Your task to perform on an android device: Open Google Maps and go to "Timeline" Image 0: 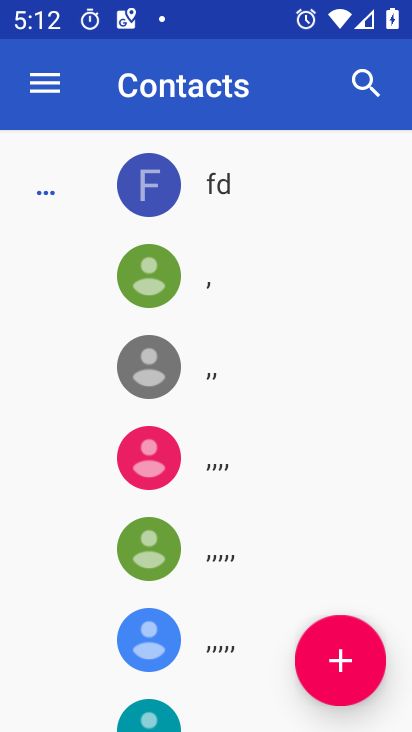
Step 0: press home button
Your task to perform on an android device: Open Google Maps and go to "Timeline" Image 1: 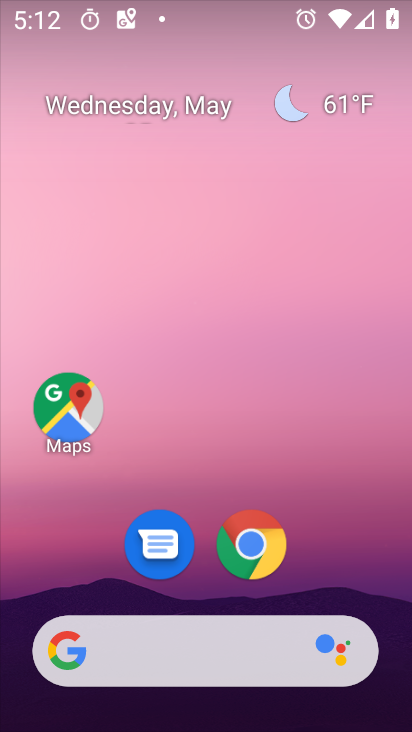
Step 1: click (63, 426)
Your task to perform on an android device: Open Google Maps and go to "Timeline" Image 2: 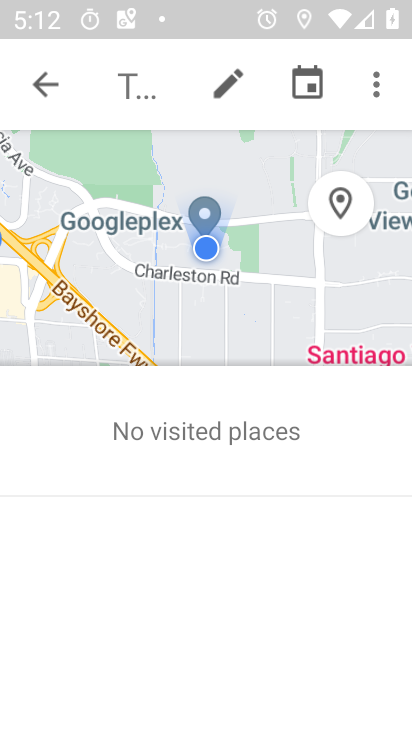
Step 2: task complete